Your task to perform on an android device: change timer sound Image 0: 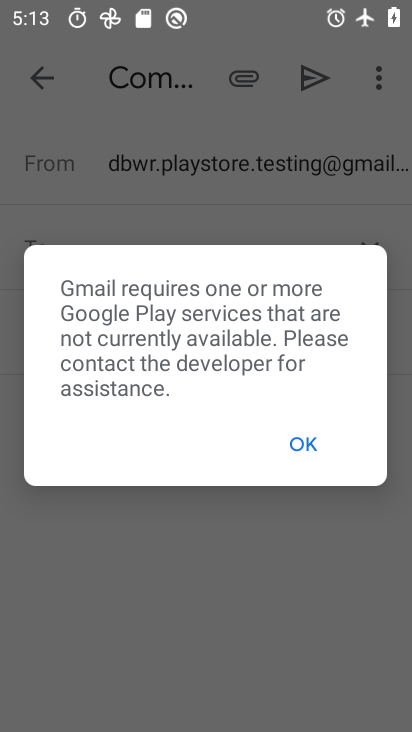
Step 0: click (296, 446)
Your task to perform on an android device: change timer sound Image 1: 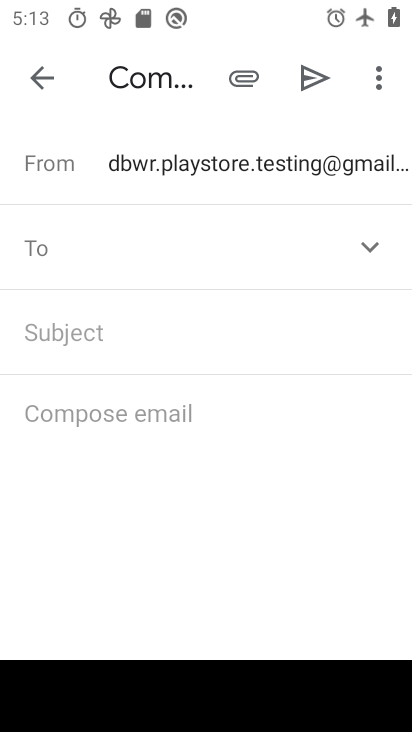
Step 1: press home button
Your task to perform on an android device: change timer sound Image 2: 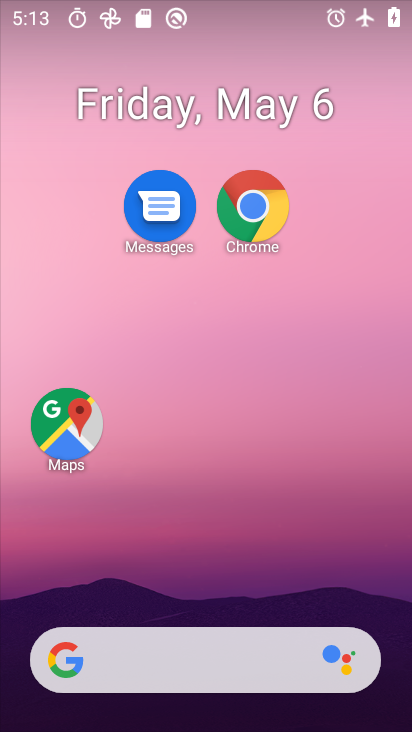
Step 2: drag from (199, 629) to (250, 185)
Your task to perform on an android device: change timer sound Image 3: 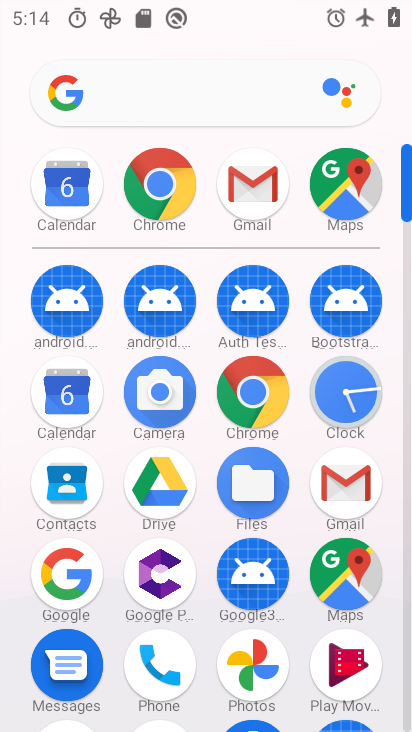
Step 3: drag from (119, 610) to (118, 306)
Your task to perform on an android device: change timer sound Image 4: 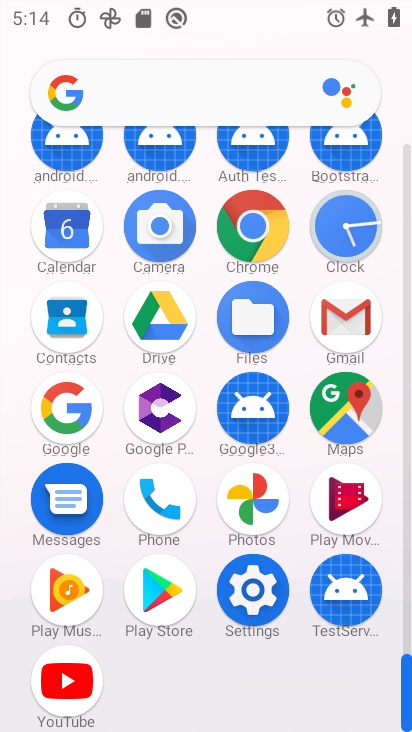
Step 4: click (338, 233)
Your task to perform on an android device: change timer sound Image 5: 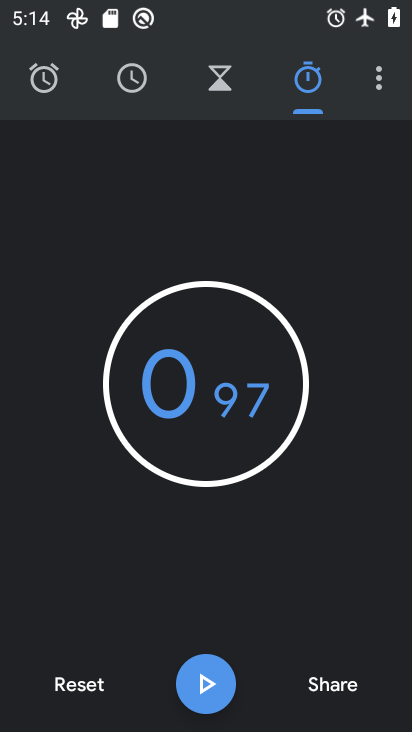
Step 5: click (388, 87)
Your task to perform on an android device: change timer sound Image 6: 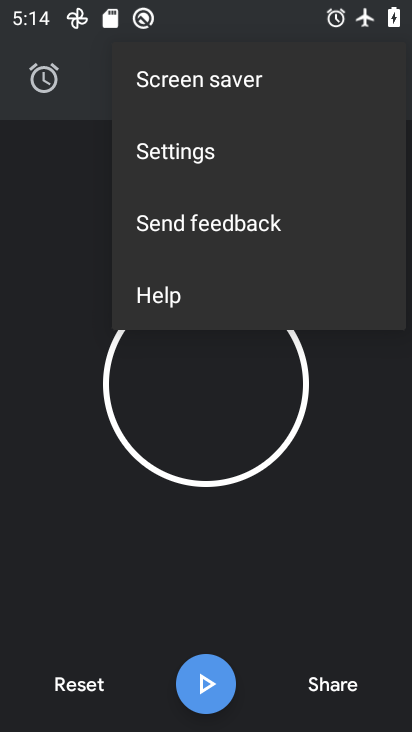
Step 6: click (183, 170)
Your task to perform on an android device: change timer sound Image 7: 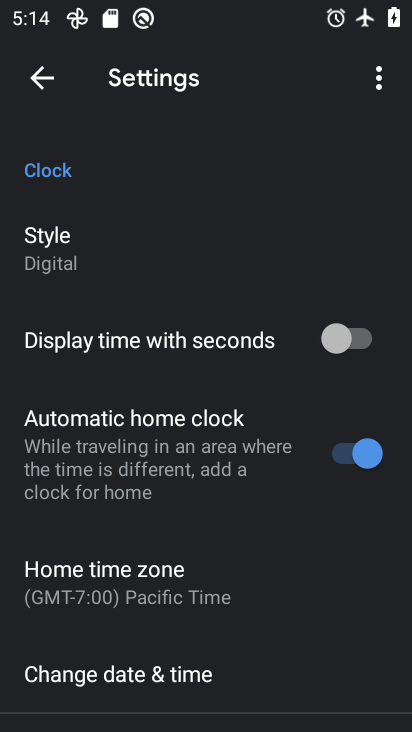
Step 7: drag from (187, 664) to (158, 236)
Your task to perform on an android device: change timer sound Image 8: 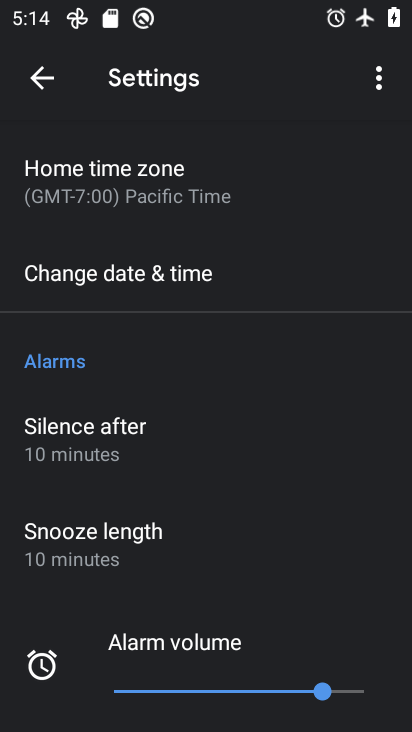
Step 8: drag from (172, 590) to (166, 327)
Your task to perform on an android device: change timer sound Image 9: 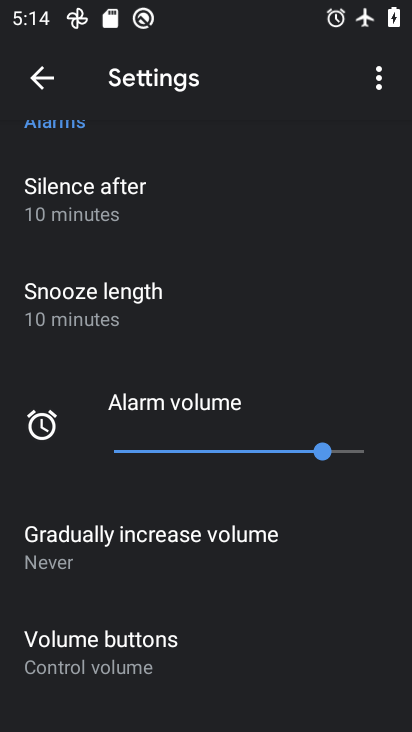
Step 9: drag from (160, 636) to (160, 300)
Your task to perform on an android device: change timer sound Image 10: 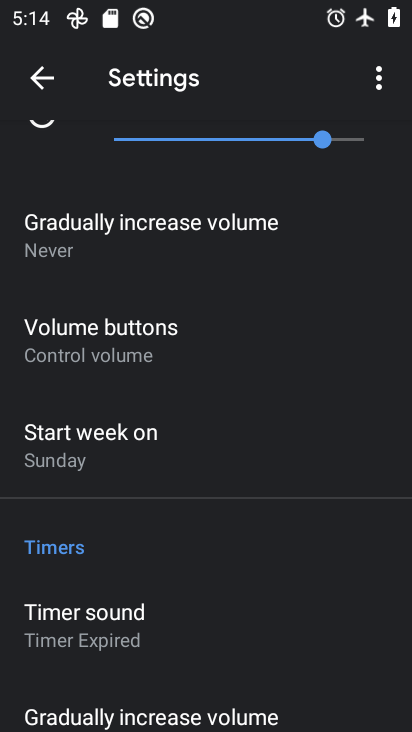
Step 10: click (107, 618)
Your task to perform on an android device: change timer sound Image 11: 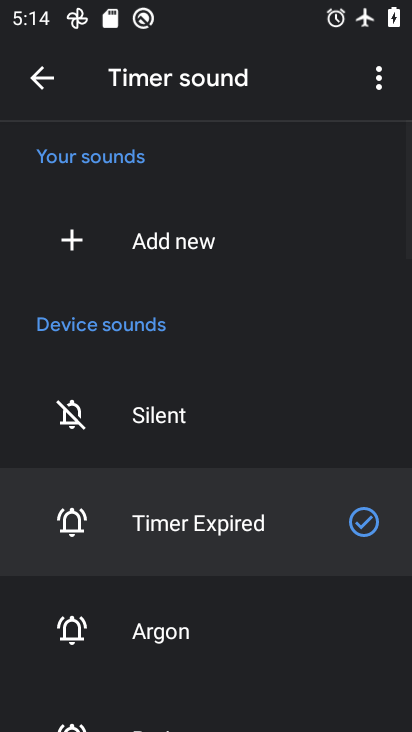
Step 11: click (132, 640)
Your task to perform on an android device: change timer sound Image 12: 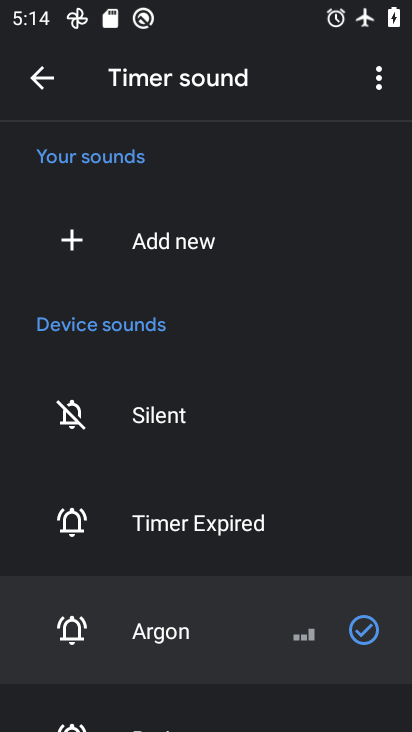
Step 12: task complete